Your task to perform on an android device: all mails in gmail Image 0: 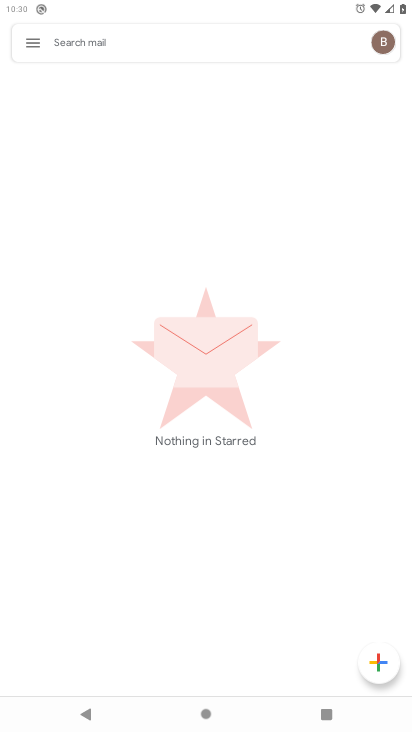
Step 0: press home button
Your task to perform on an android device: all mails in gmail Image 1: 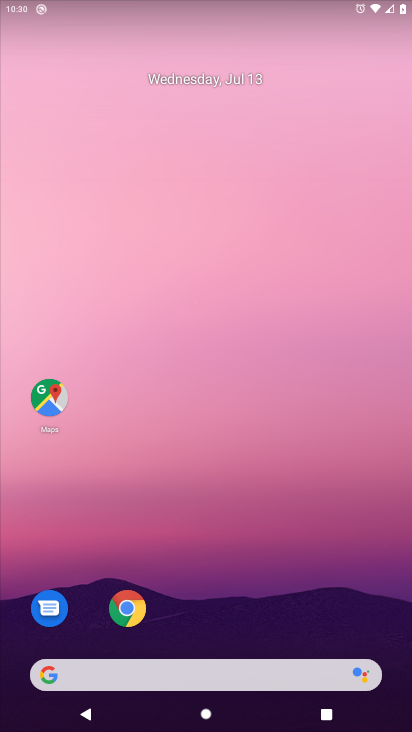
Step 1: drag from (35, 696) to (170, 128)
Your task to perform on an android device: all mails in gmail Image 2: 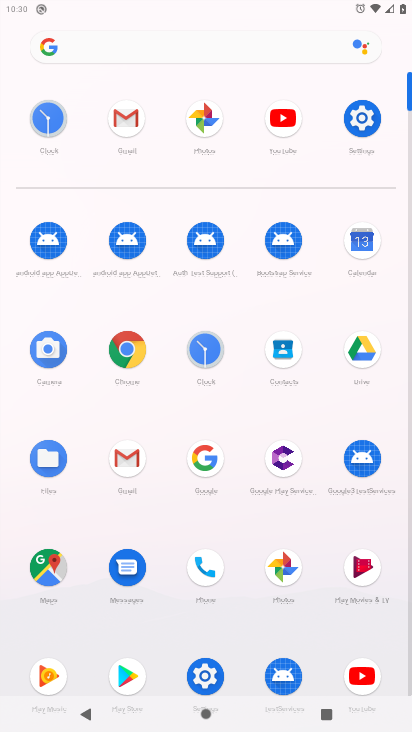
Step 2: click (125, 469)
Your task to perform on an android device: all mails in gmail Image 3: 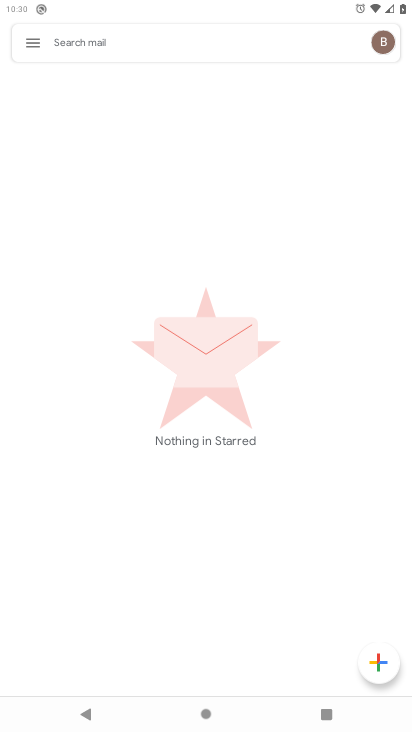
Step 3: click (31, 39)
Your task to perform on an android device: all mails in gmail Image 4: 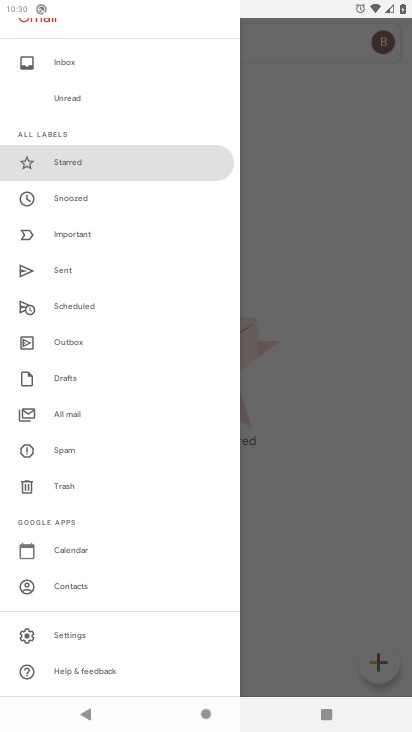
Step 4: click (81, 408)
Your task to perform on an android device: all mails in gmail Image 5: 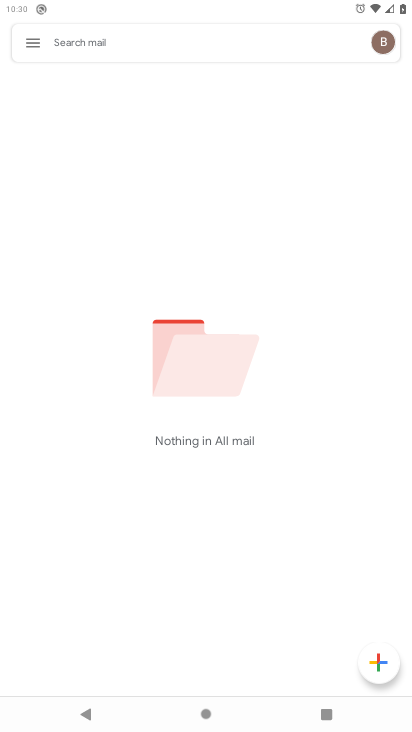
Step 5: task complete